Your task to perform on an android device: Open the Play Movies app and select the watchlist tab. Image 0: 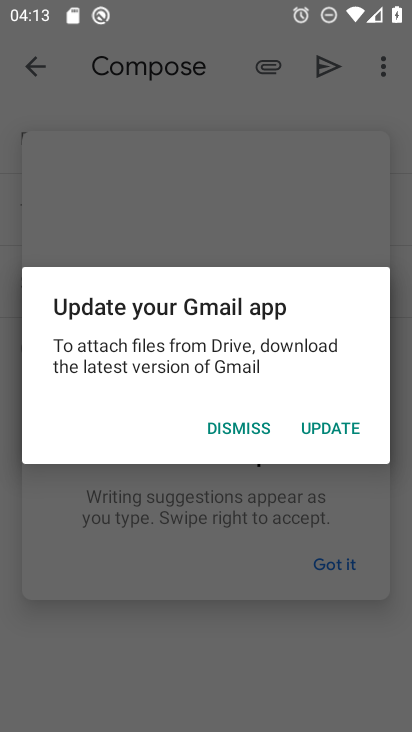
Step 0: press home button
Your task to perform on an android device: Open the Play Movies app and select the watchlist tab. Image 1: 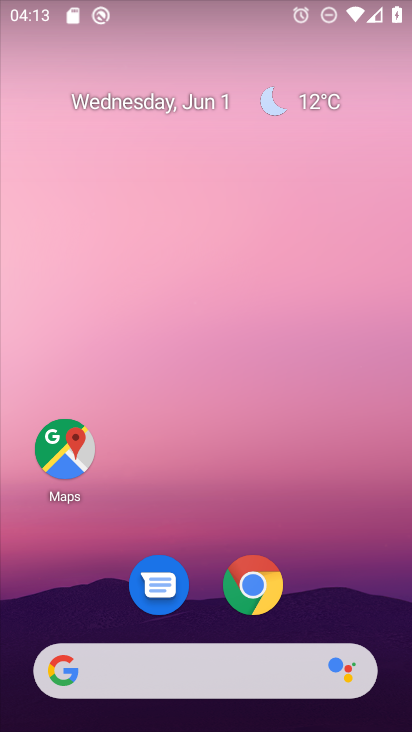
Step 1: drag from (222, 513) to (275, 2)
Your task to perform on an android device: Open the Play Movies app and select the watchlist tab. Image 2: 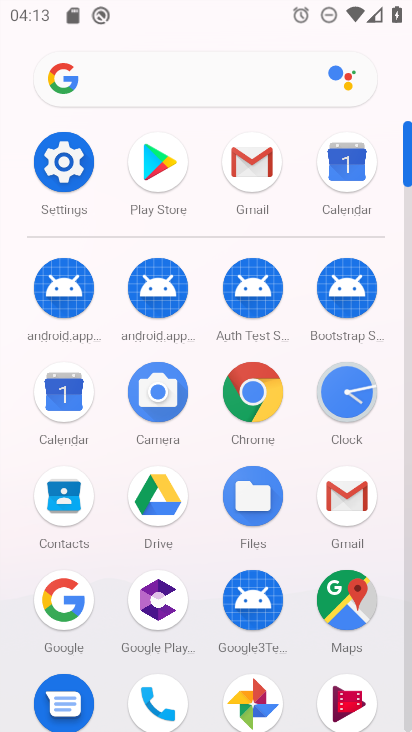
Step 2: click (339, 691)
Your task to perform on an android device: Open the Play Movies app and select the watchlist tab. Image 3: 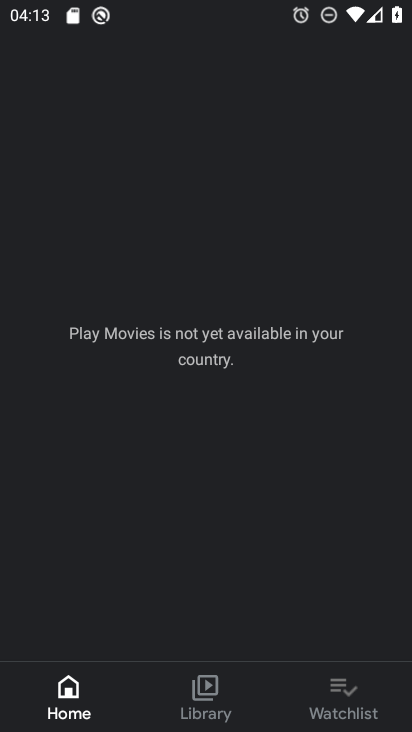
Step 3: click (340, 693)
Your task to perform on an android device: Open the Play Movies app and select the watchlist tab. Image 4: 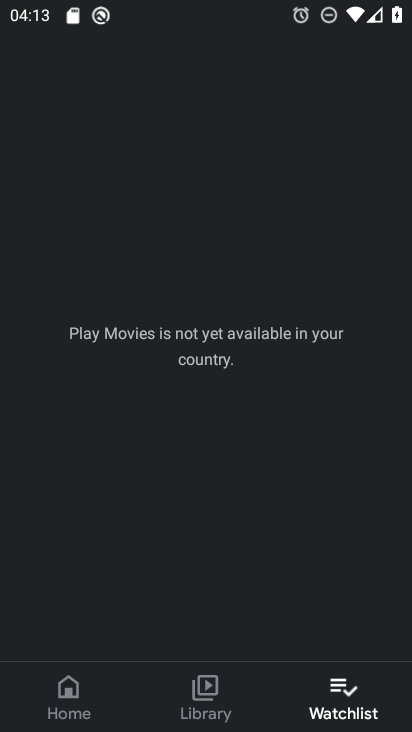
Step 4: task complete